Your task to perform on an android device: Show me productivity apps on the Play Store Image 0: 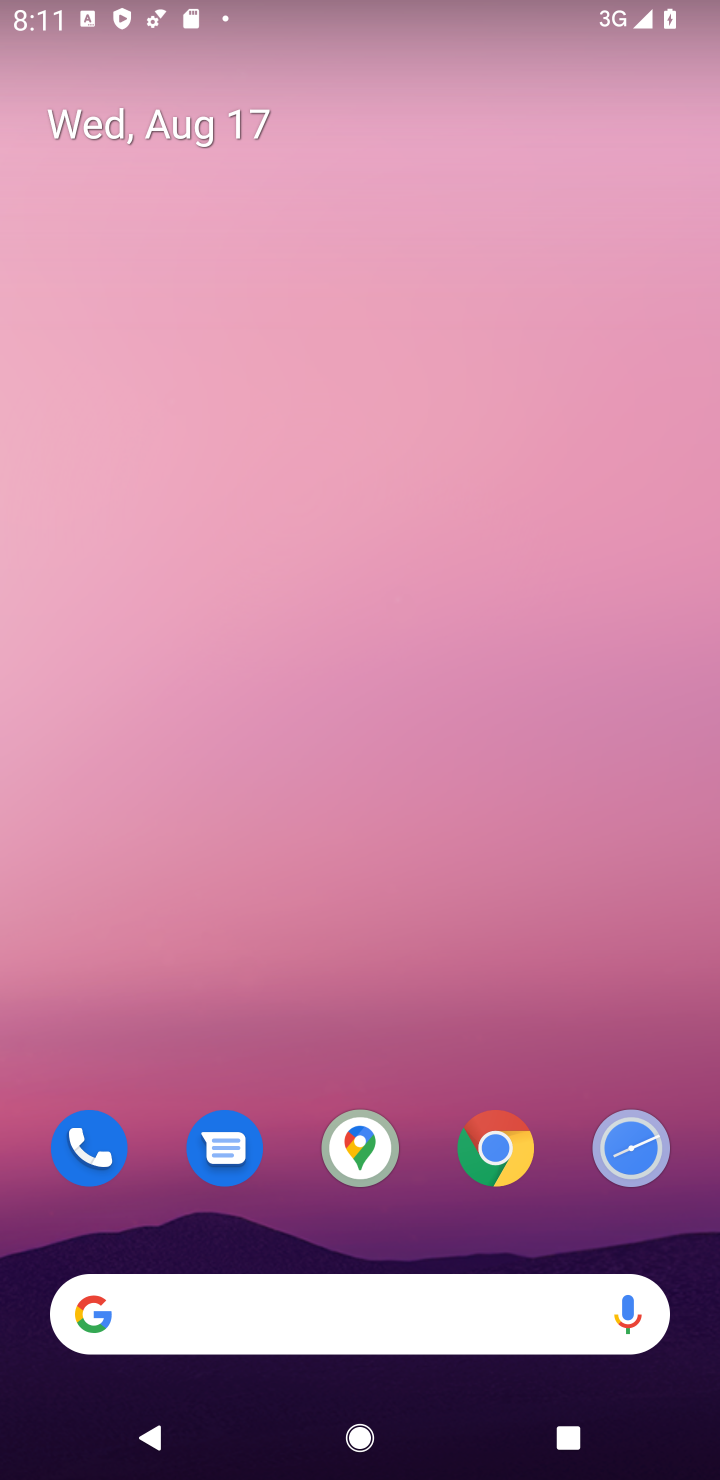
Step 0: drag from (540, 938) to (521, 137)
Your task to perform on an android device: Show me productivity apps on the Play Store Image 1: 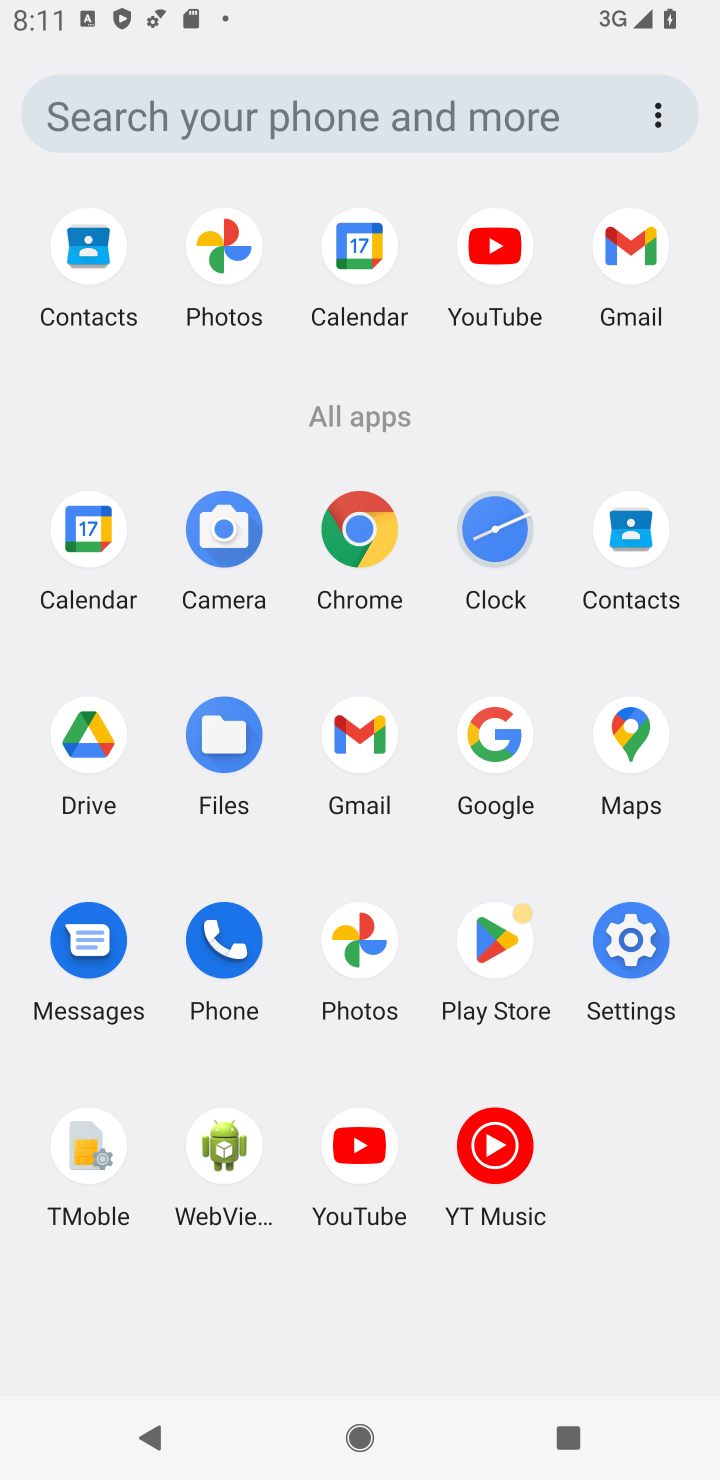
Step 1: click (497, 943)
Your task to perform on an android device: Show me productivity apps on the Play Store Image 2: 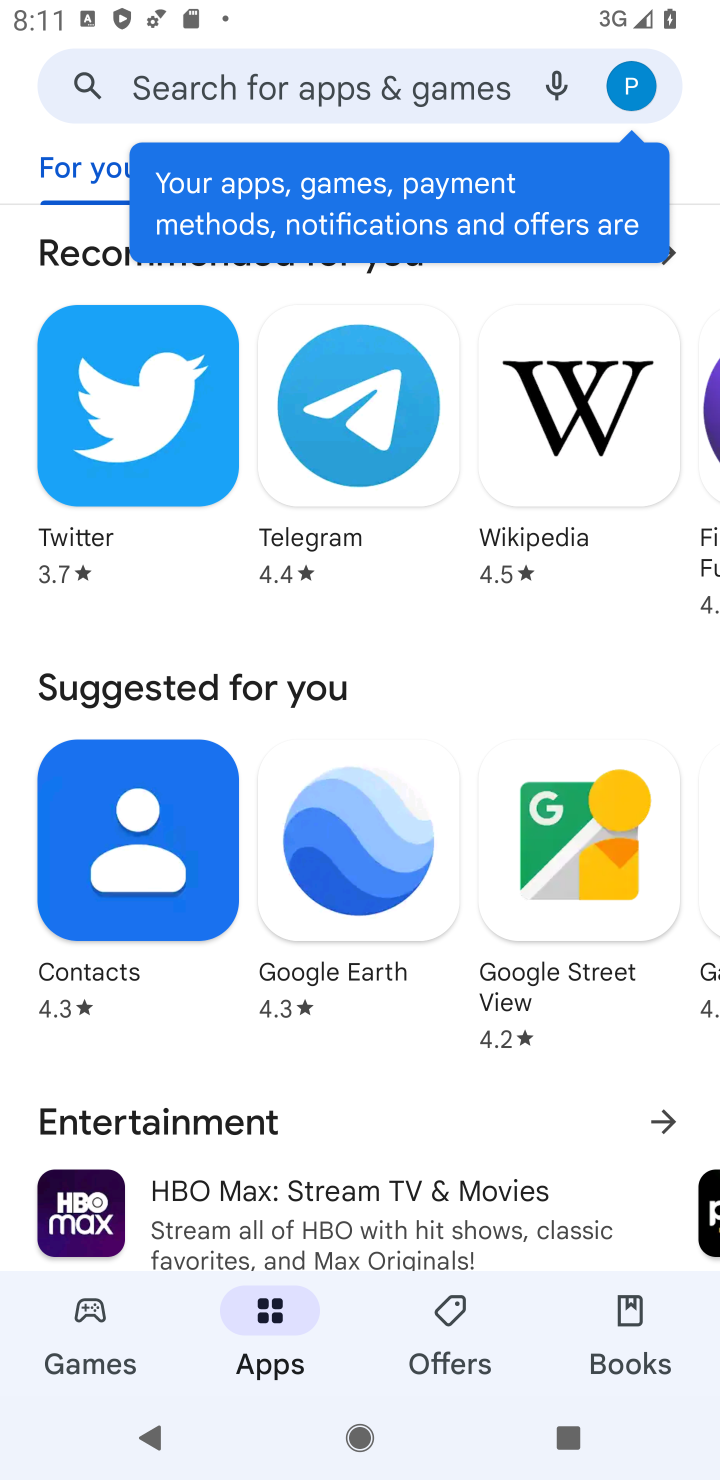
Step 2: click (462, 649)
Your task to perform on an android device: Show me productivity apps on the Play Store Image 3: 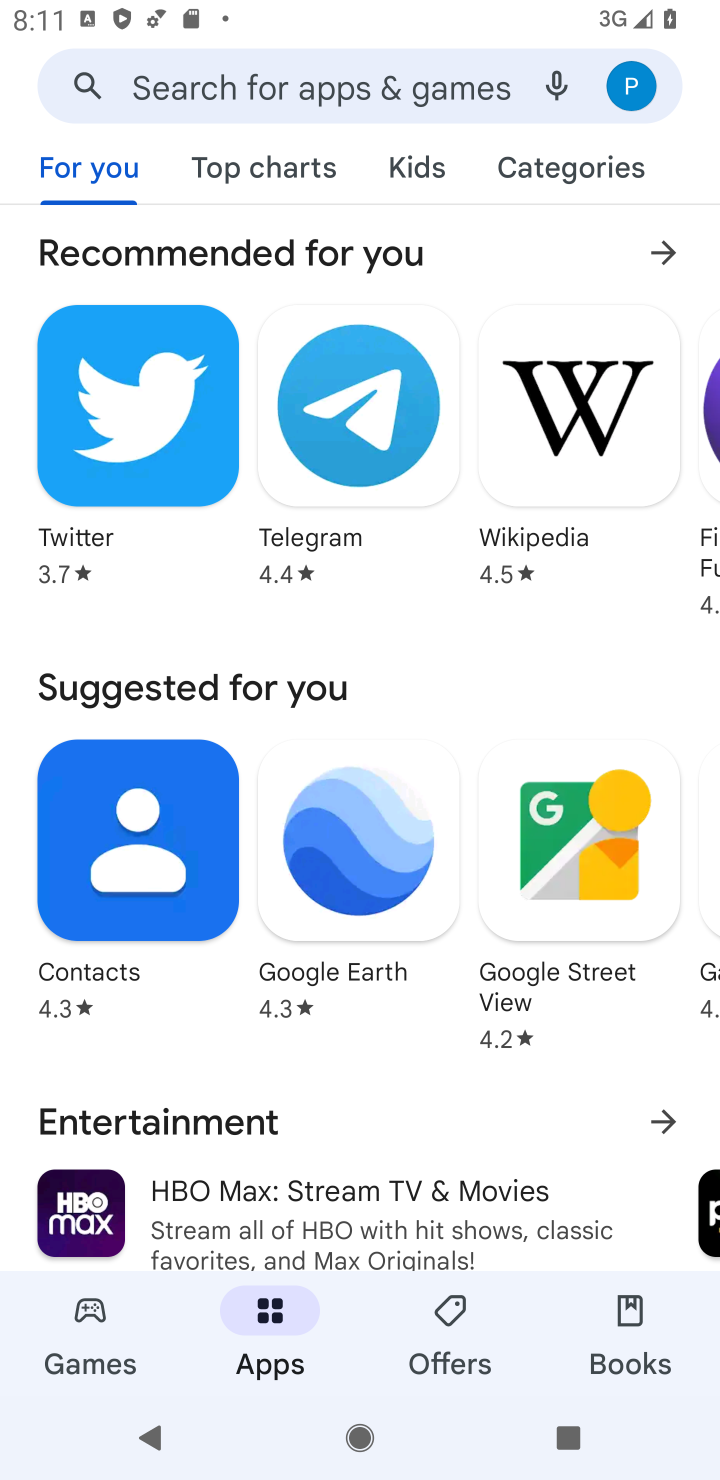
Step 3: click (579, 171)
Your task to perform on an android device: Show me productivity apps on the Play Store Image 4: 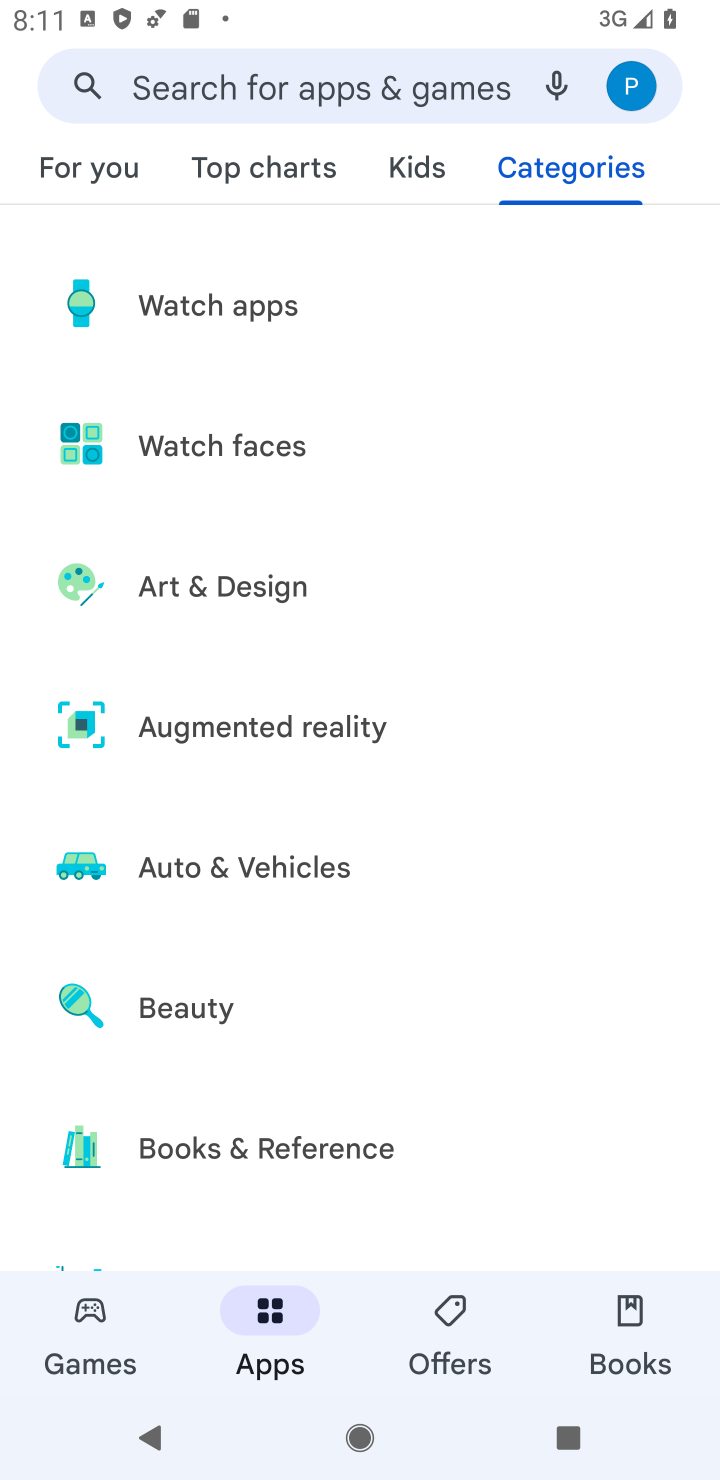
Step 4: drag from (448, 1143) to (465, 312)
Your task to perform on an android device: Show me productivity apps on the Play Store Image 5: 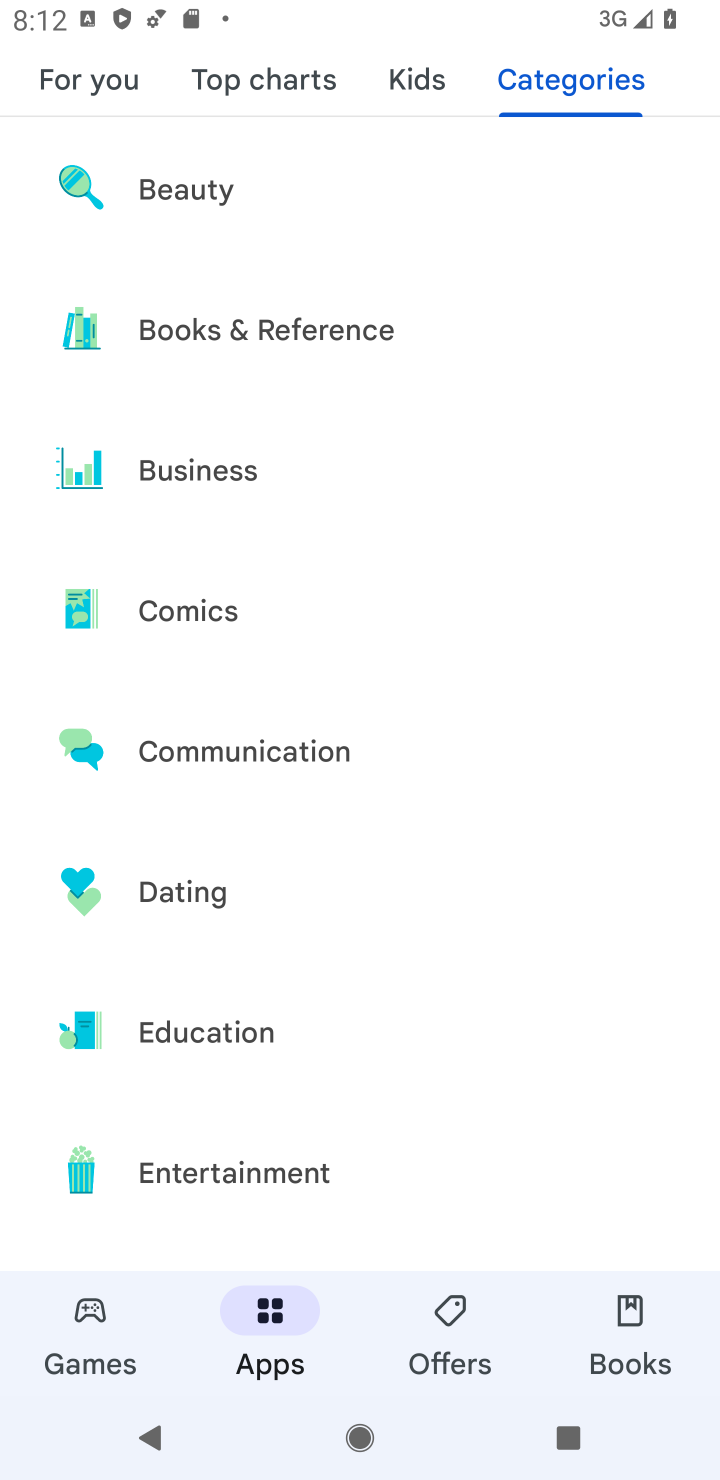
Step 5: drag from (458, 1101) to (495, 409)
Your task to perform on an android device: Show me productivity apps on the Play Store Image 6: 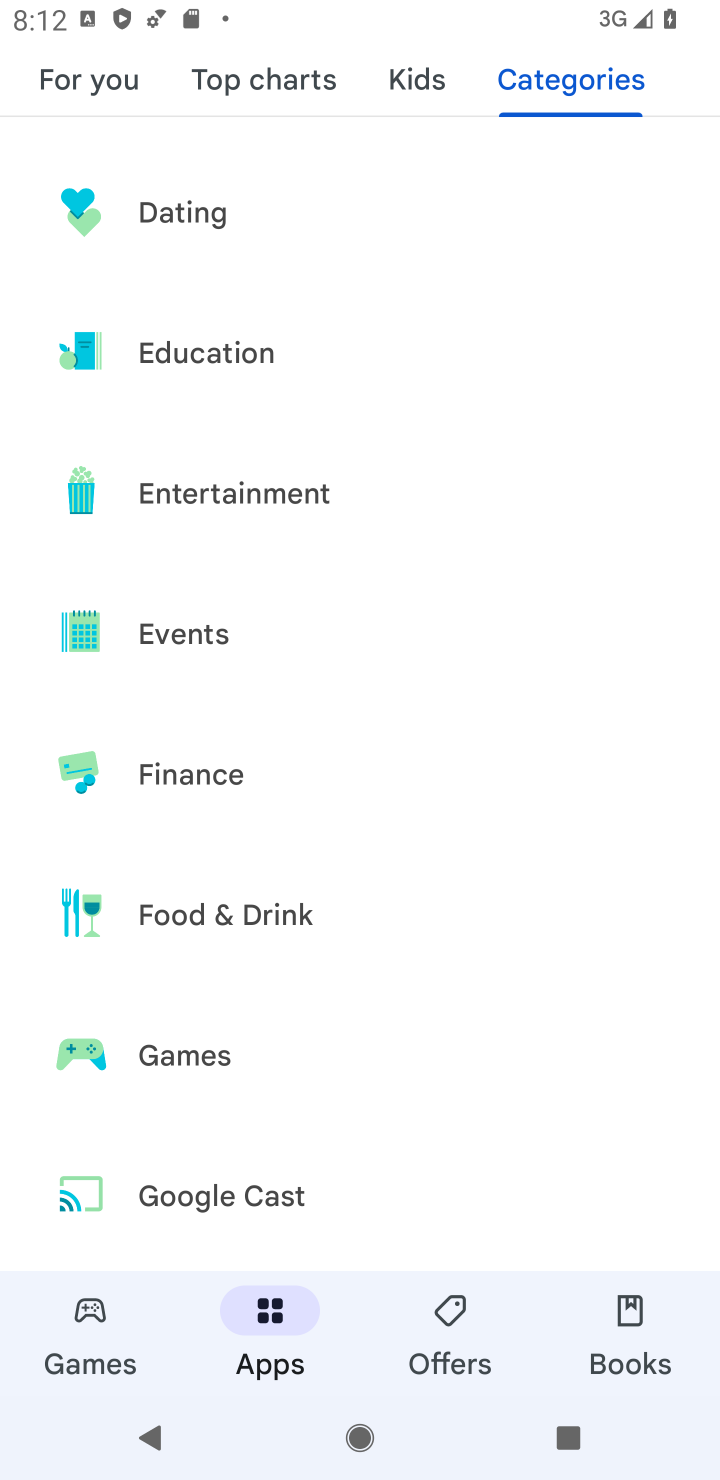
Step 6: drag from (380, 1162) to (473, 383)
Your task to perform on an android device: Show me productivity apps on the Play Store Image 7: 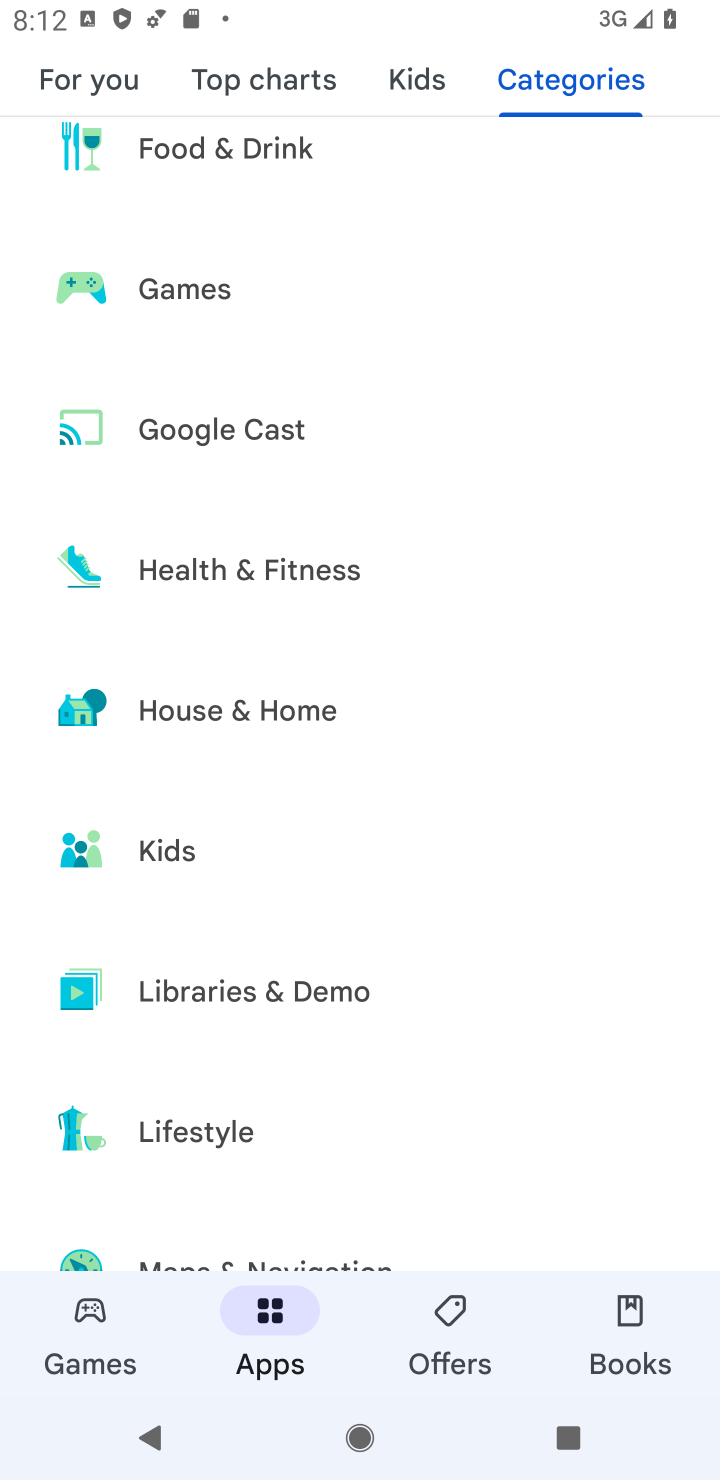
Step 7: drag from (495, 1167) to (492, 375)
Your task to perform on an android device: Show me productivity apps on the Play Store Image 8: 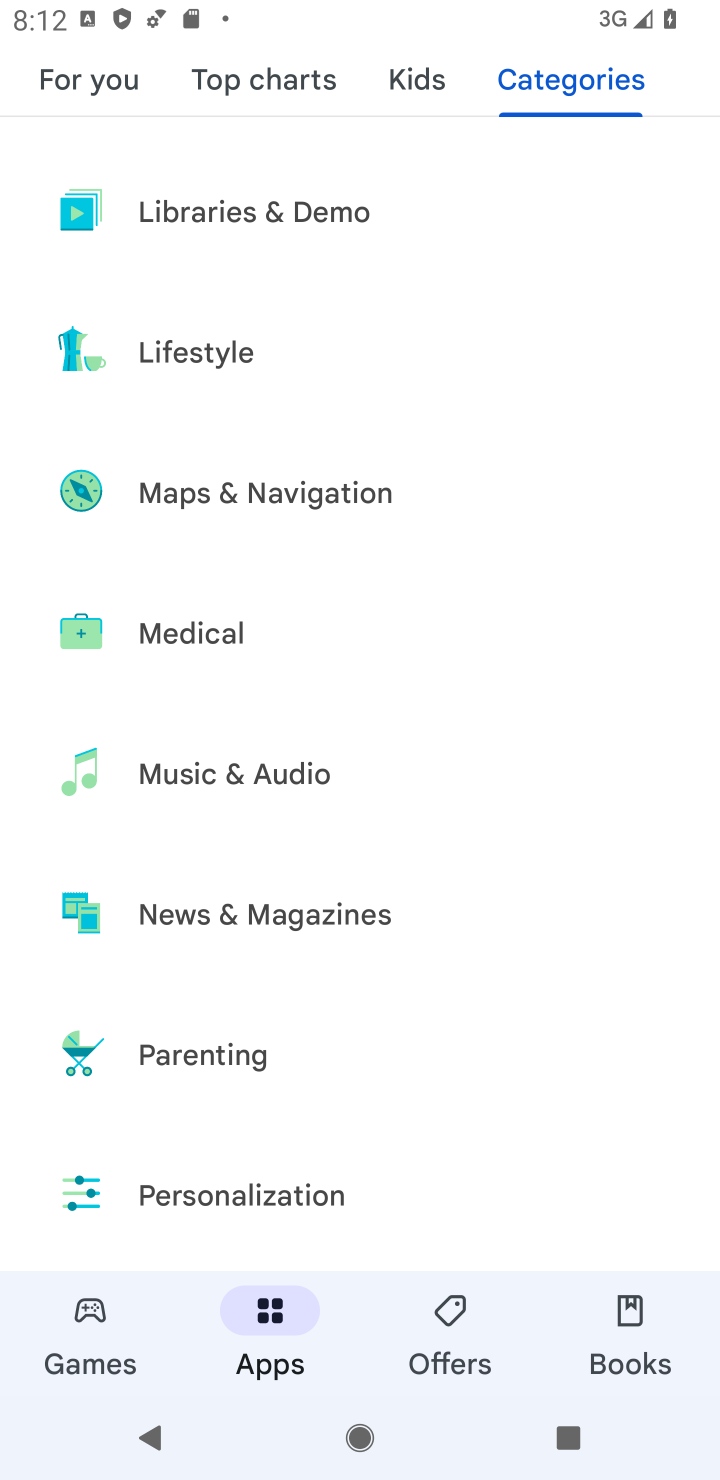
Step 8: drag from (512, 1177) to (493, 416)
Your task to perform on an android device: Show me productivity apps on the Play Store Image 9: 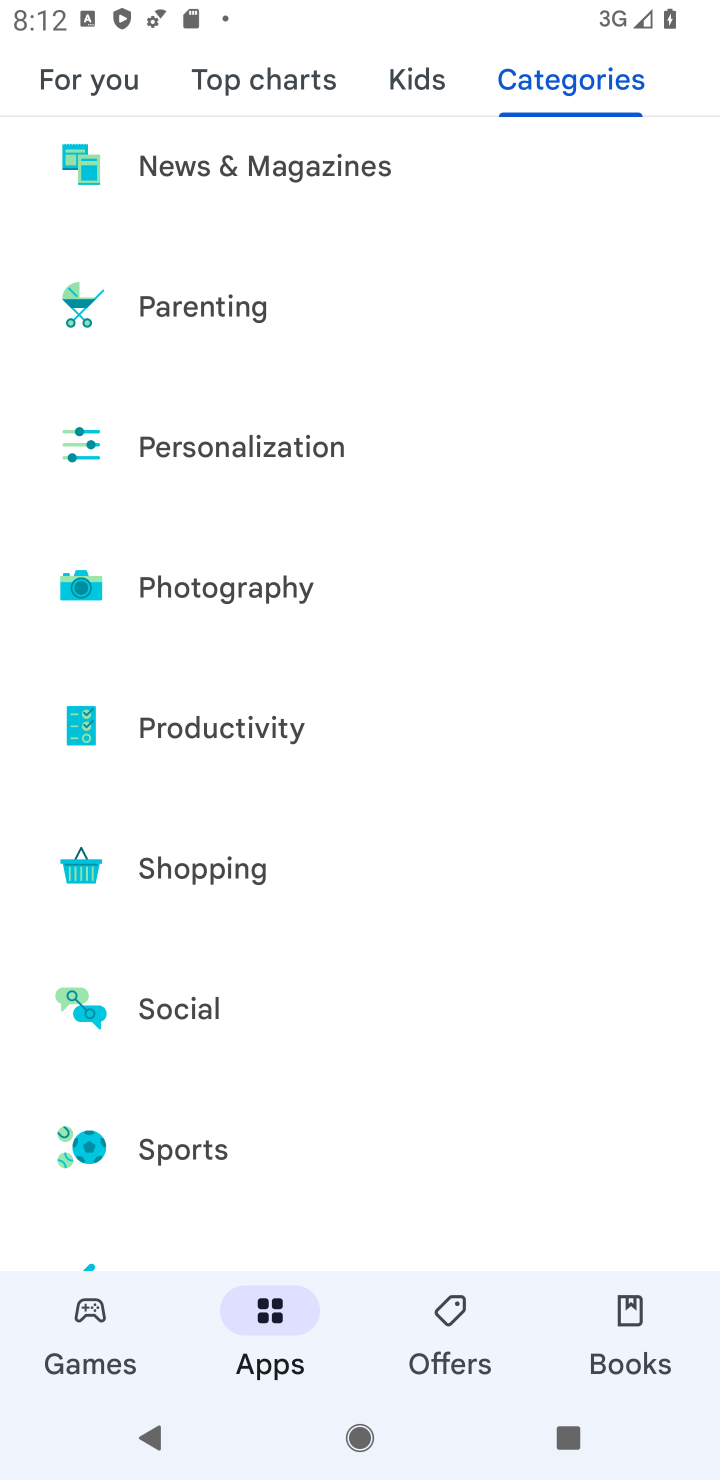
Step 9: click (224, 728)
Your task to perform on an android device: Show me productivity apps on the Play Store Image 10: 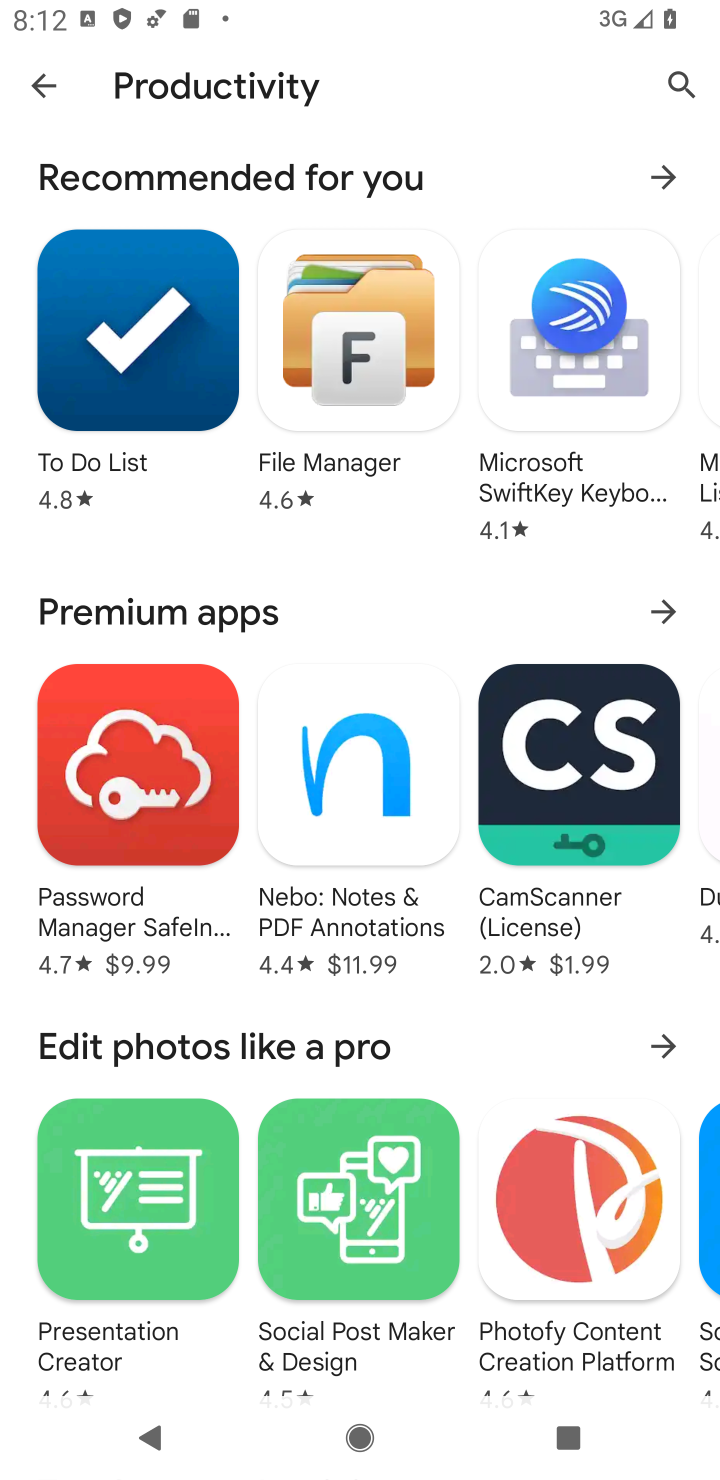
Step 10: drag from (460, 1056) to (461, 243)
Your task to perform on an android device: Show me productivity apps on the Play Store Image 11: 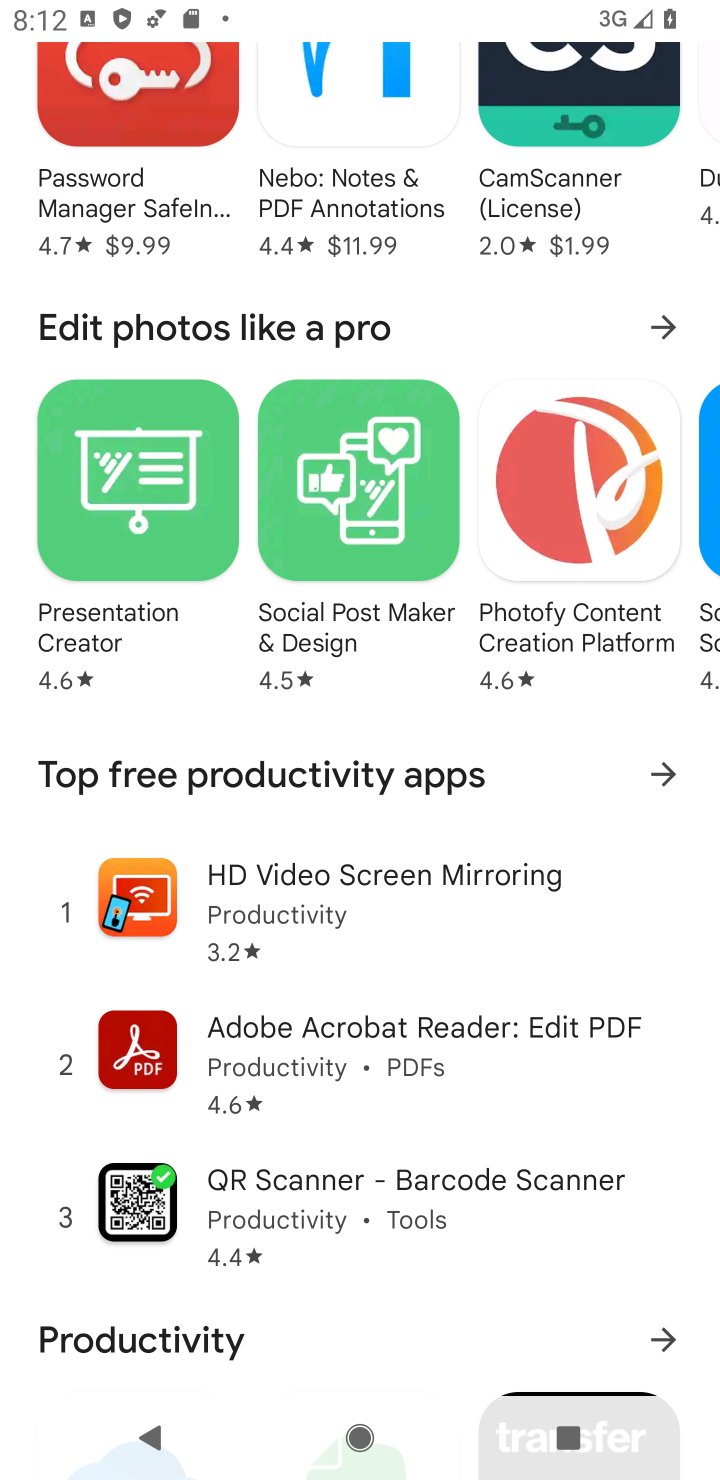
Step 11: drag from (445, 1284) to (459, 320)
Your task to perform on an android device: Show me productivity apps on the Play Store Image 12: 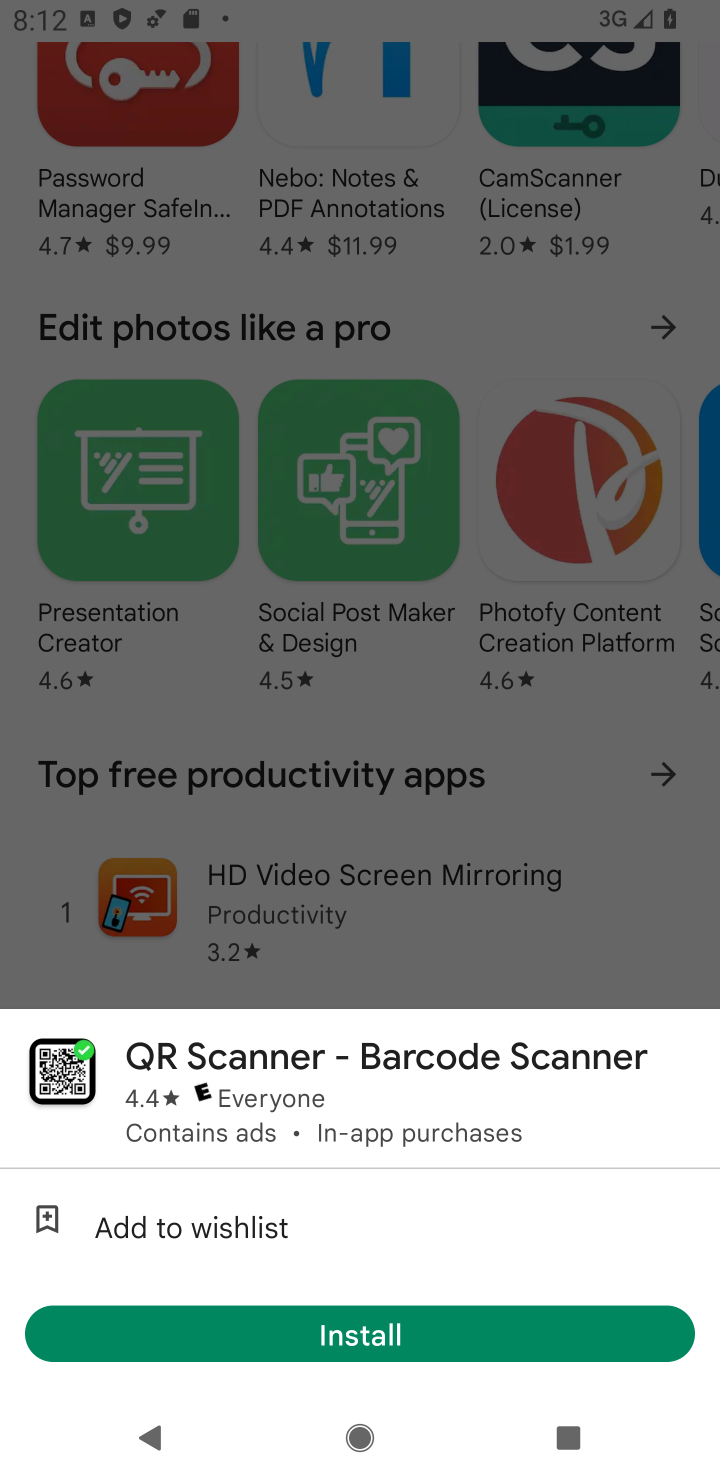
Step 12: click (529, 941)
Your task to perform on an android device: Show me productivity apps on the Play Store Image 13: 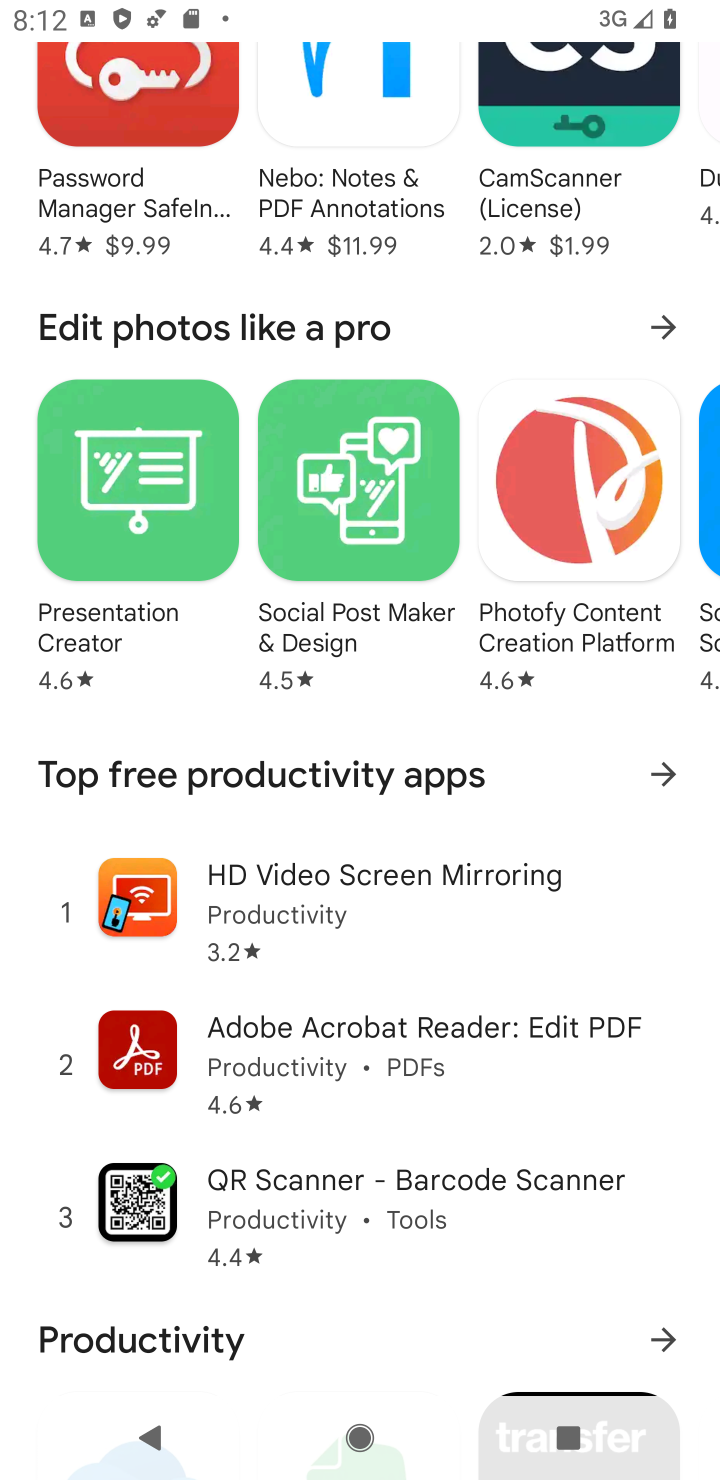
Step 13: drag from (408, 1367) to (453, 137)
Your task to perform on an android device: Show me productivity apps on the Play Store Image 14: 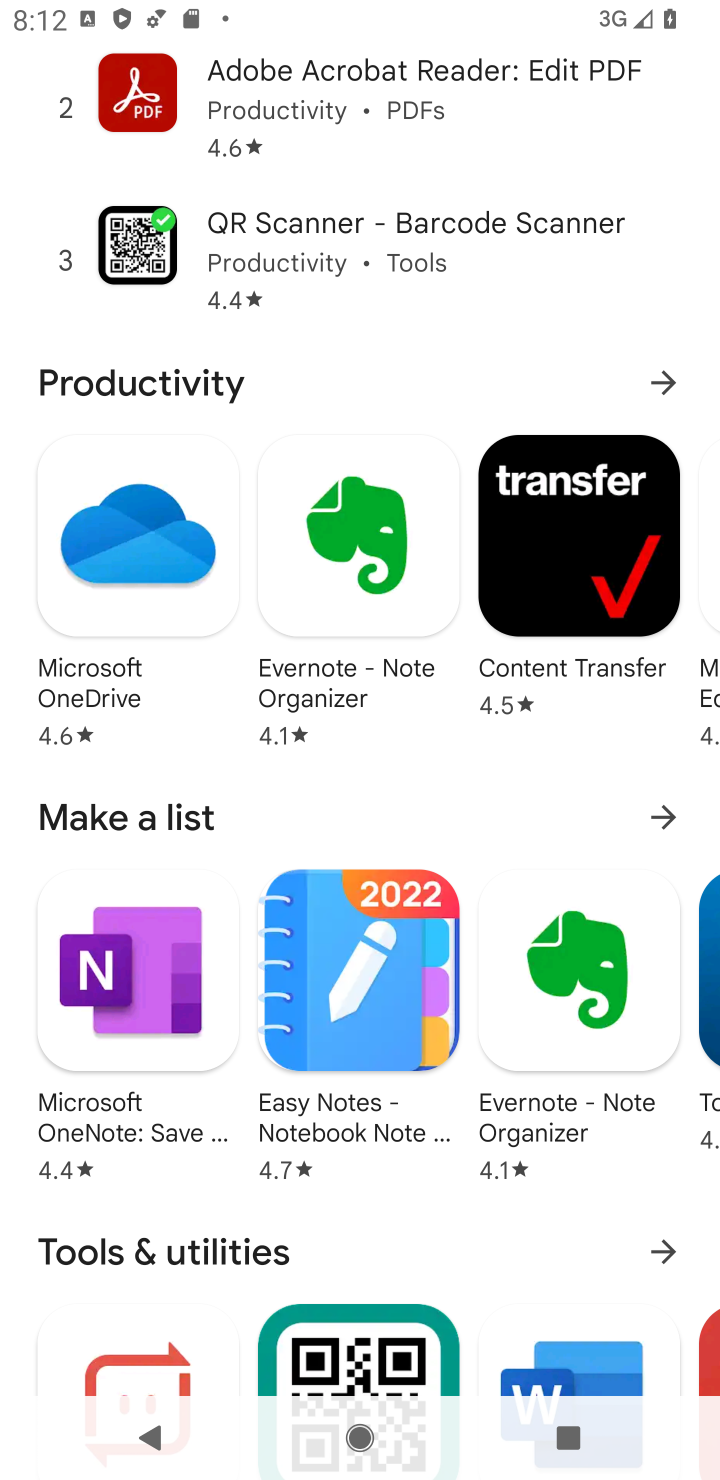
Step 14: click (667, 376)
Your task to perform on an android device: Show me productivity apps on the Play Store Image 15: 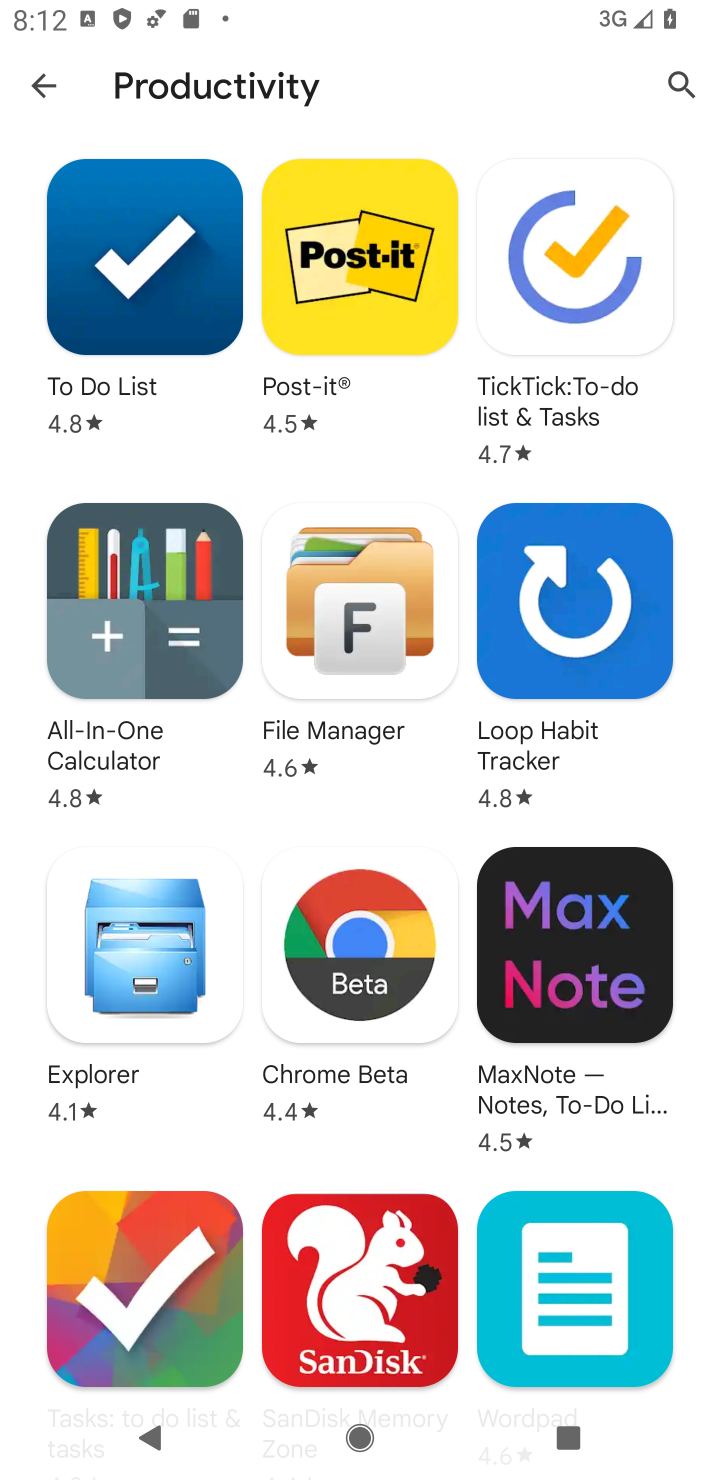
Step 15: task complete